Your task to perform on an android device: Open internet settings Image 0: 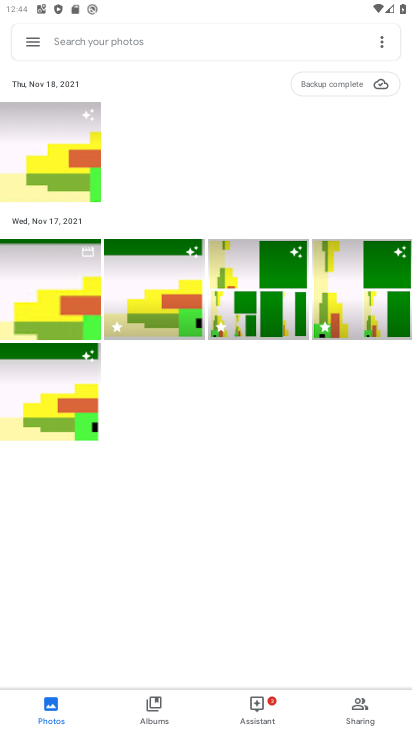
Step 0: press home button
Your task to perform on an android device: Open internet settings Image 1: 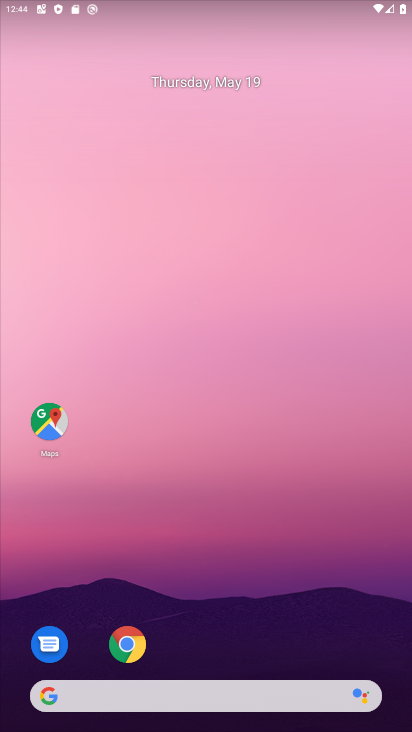
Step 1: drag from (378, 617) to (348, 147)
Your task to perform on an android device: Open internet settings Image 2: 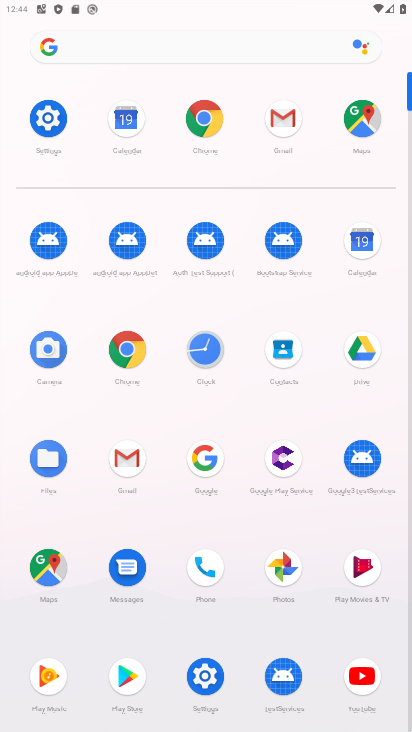
Step 2: click (194, 672)
Your task to perform on an android device: Open internet settings Image 3: 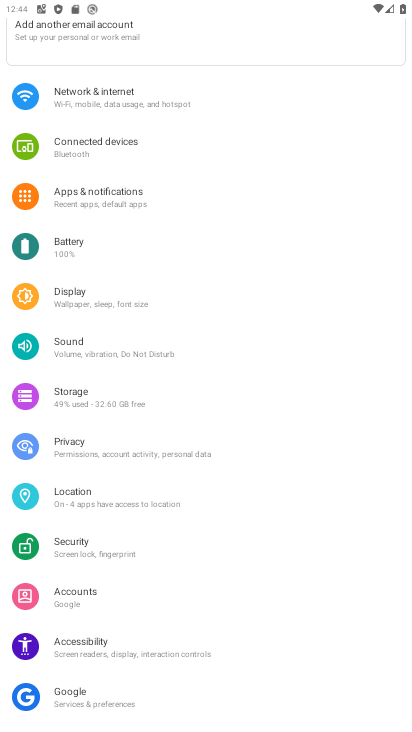
Step 3: drag from (223, 681) to (259, 496)
Your task to perform on an android device: Open internet settings Image 4: 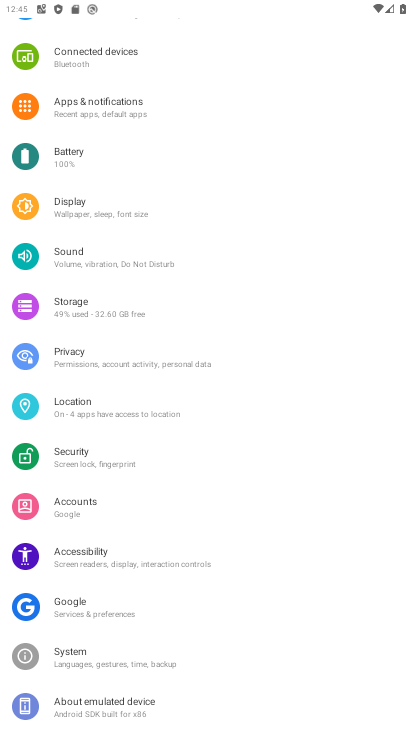
Step 4: drag from (144, 93) to (164, 465)
Your task to perform on an android device: Open internet settings Image 5: 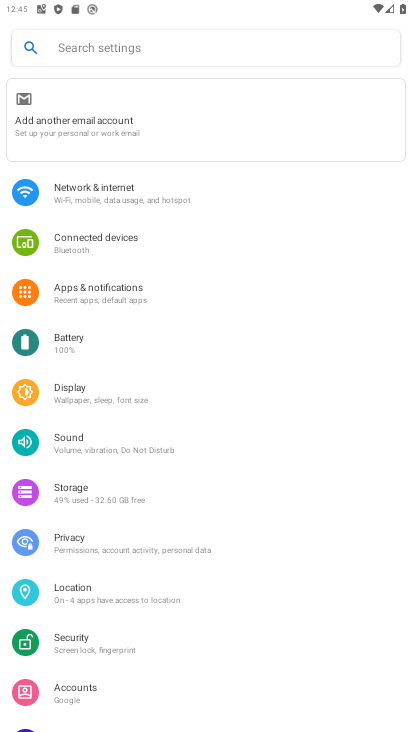
Step 5: click (114, 181)
Your task to perform on an android device: Open internet settings Image 6: 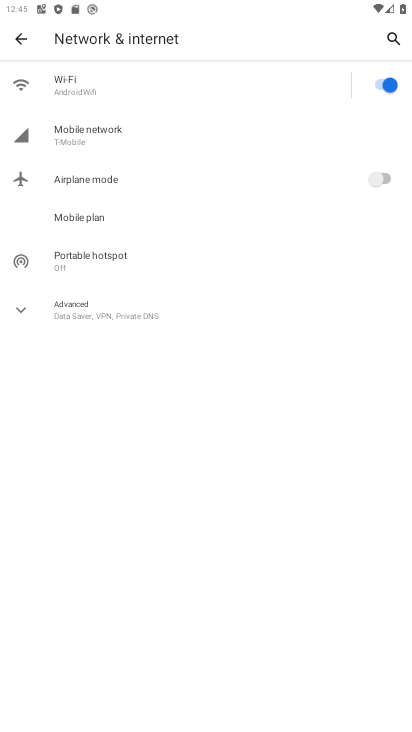
Step 6: task complete